Your task to perform on an android device: When is my next appointment? Image 0: 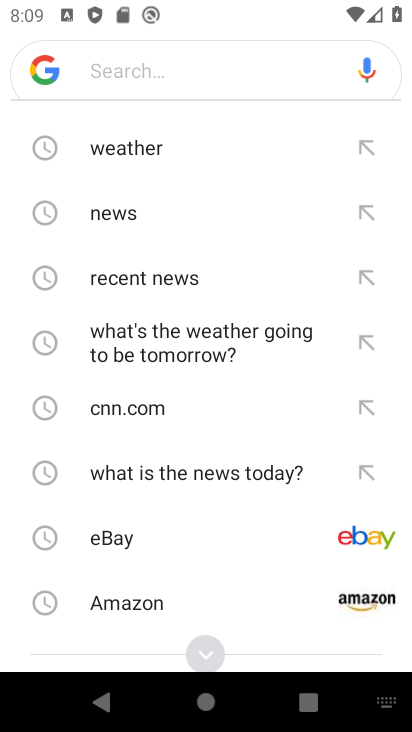
Step 0: press home button
Your task to perform on an android device: When is my next appointment? Image 1: 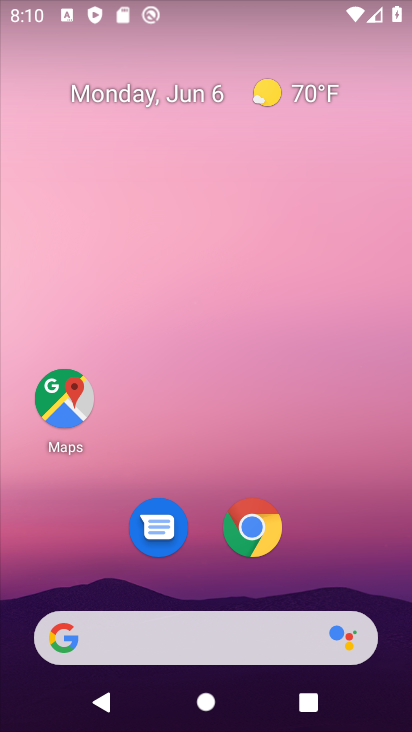
Step 1: drag from (198, 532) to (194, 115)
Your task to perform on an android device: When is my next appointment? Image 2: 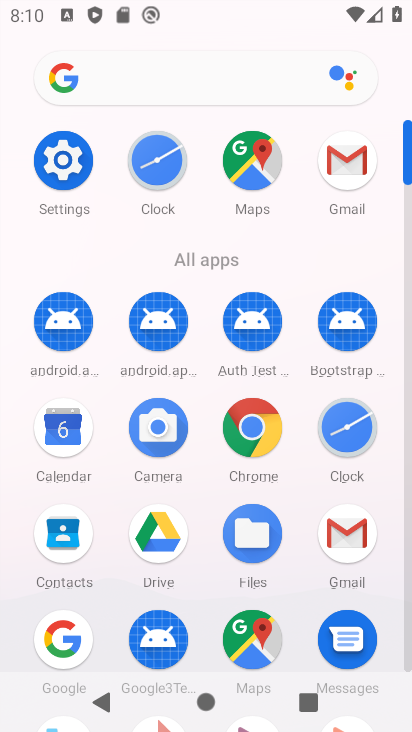
Step 2: click (82, 448)
Your task to perform on an android device: When is my next appointment? Image 3: 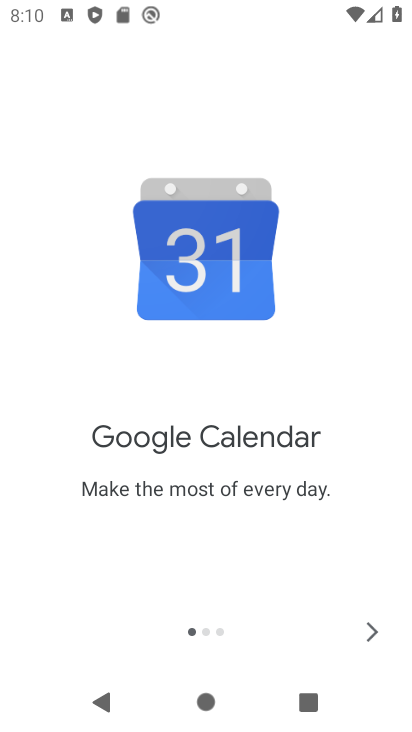
Step 3: click (369, 622)
Your task to perform on an android device: When is my next appointment? Image 4: 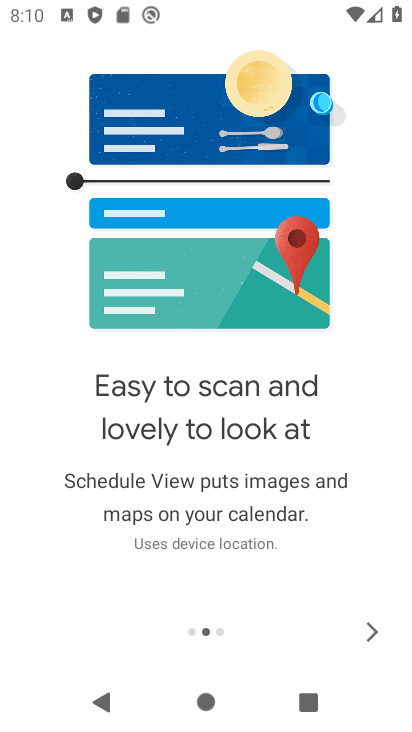
Step 4: click (371, 633)
Your task to perform on an android device: When is my next appointment? Image 5: 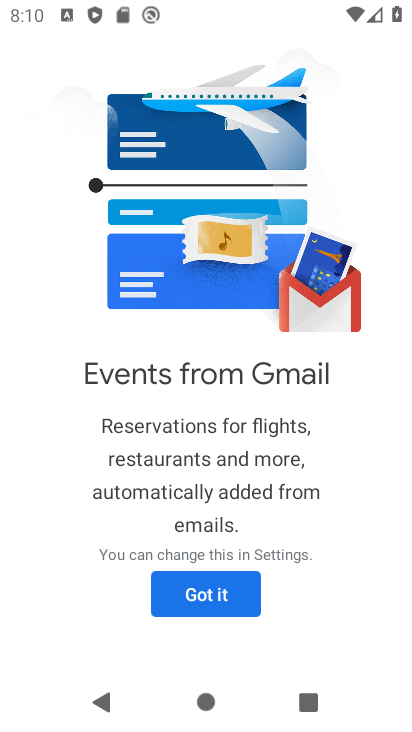
Step 5: click (239, 603)
Your task to perform on an android device: When is my next appointment? Image 6: 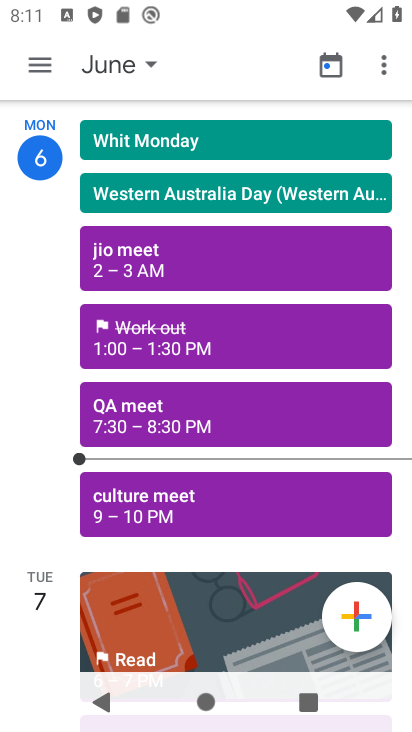
Step 6: click (37, 68)
Your task to perform on an android device: When is my next appointment? Image 7: 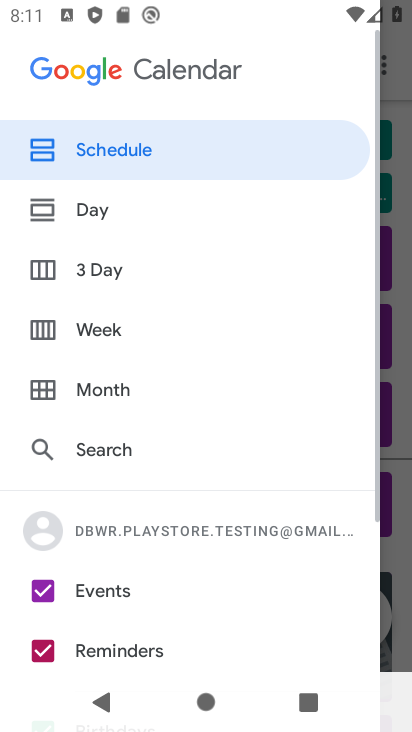
Step 7: drag from (87, 585) to (120, 263)
Your task to perform on an android device: When is my next appointment? Image 8: 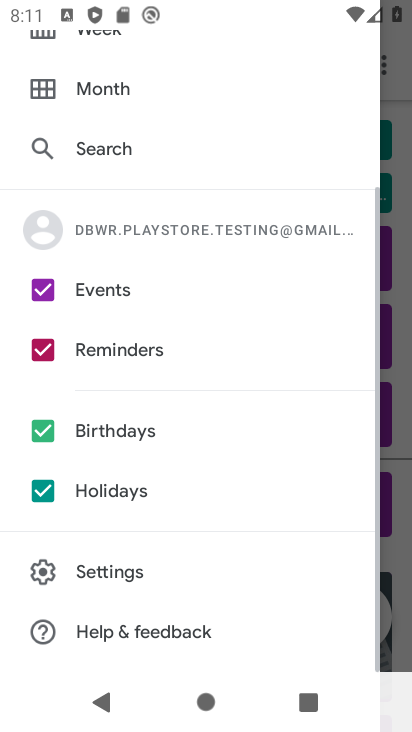
Step 8: click (45, 493)
Your task to perform on an android device: When is my next appointment? Image 9: 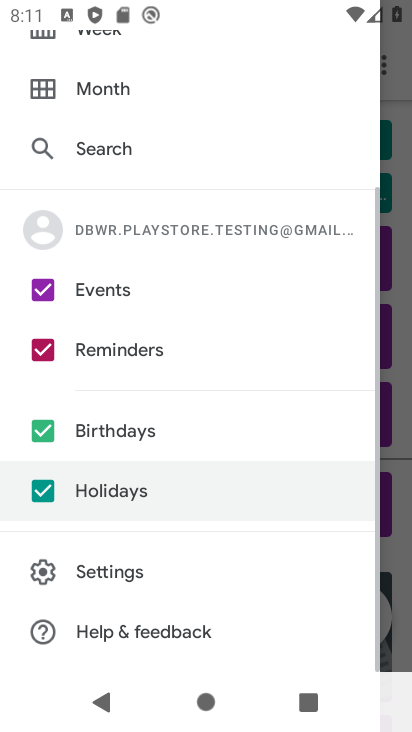
Step 9: click (41, 426)
Your task to perform on an android device: When is my next appointment? Image 10: 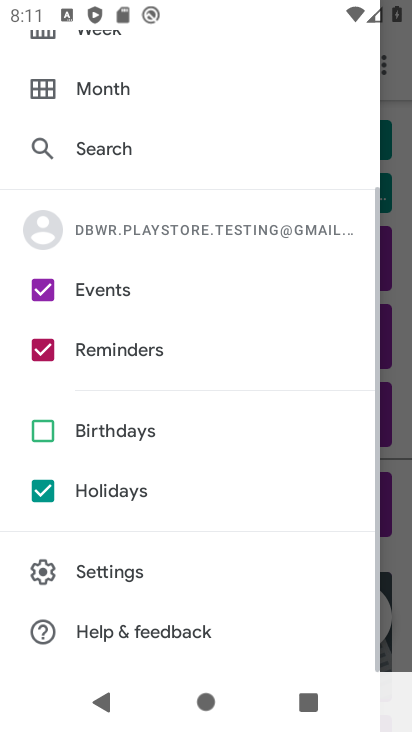
Step 10: click (40, 489)
Your task to perform on an android device: When is my next appointment? Image 11: 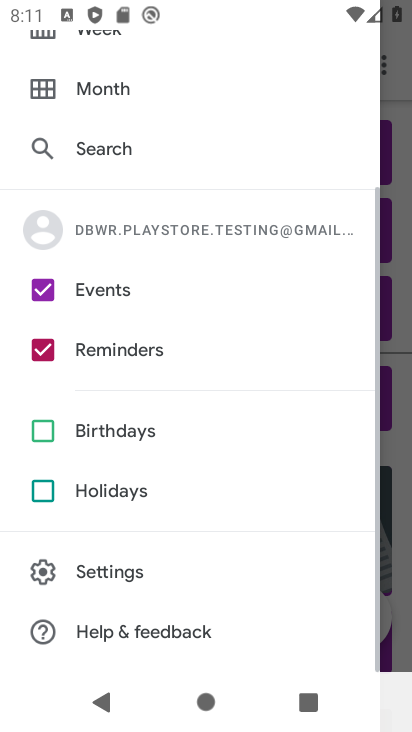
Step 11: click (408, 382)
Your task to perform on an android device: When is my next appointment? Image 12: 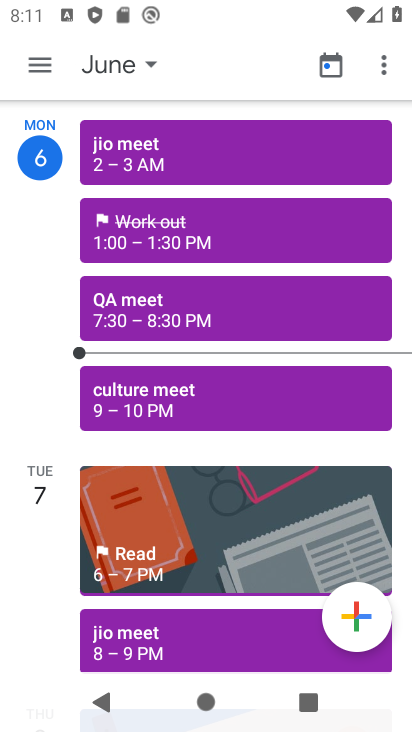
Step 12: task complete